Your task to perform on an android device: Open wifi settings Image 0: 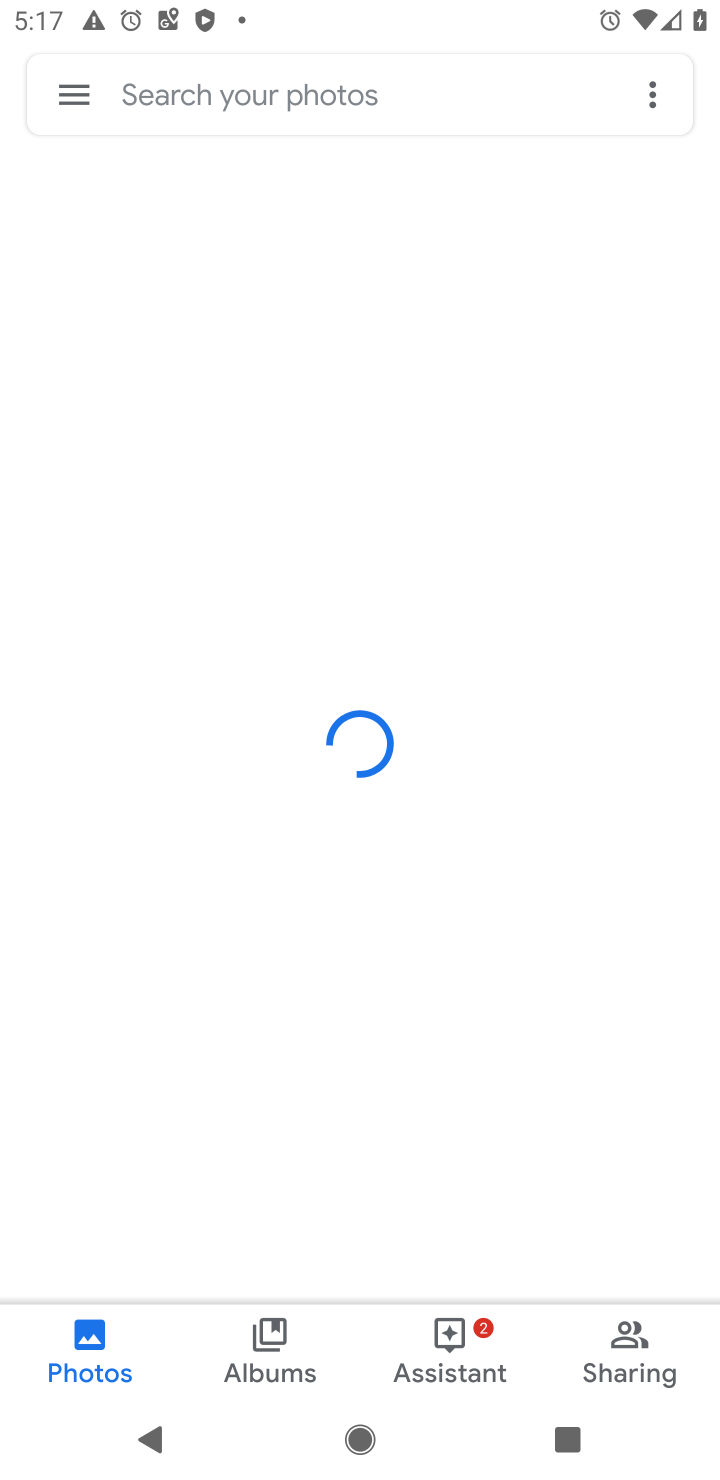
Step 0: drag from (484, 10) to (440, 1077)
Your task to perform on an android device: Open wifi settings Image 1: 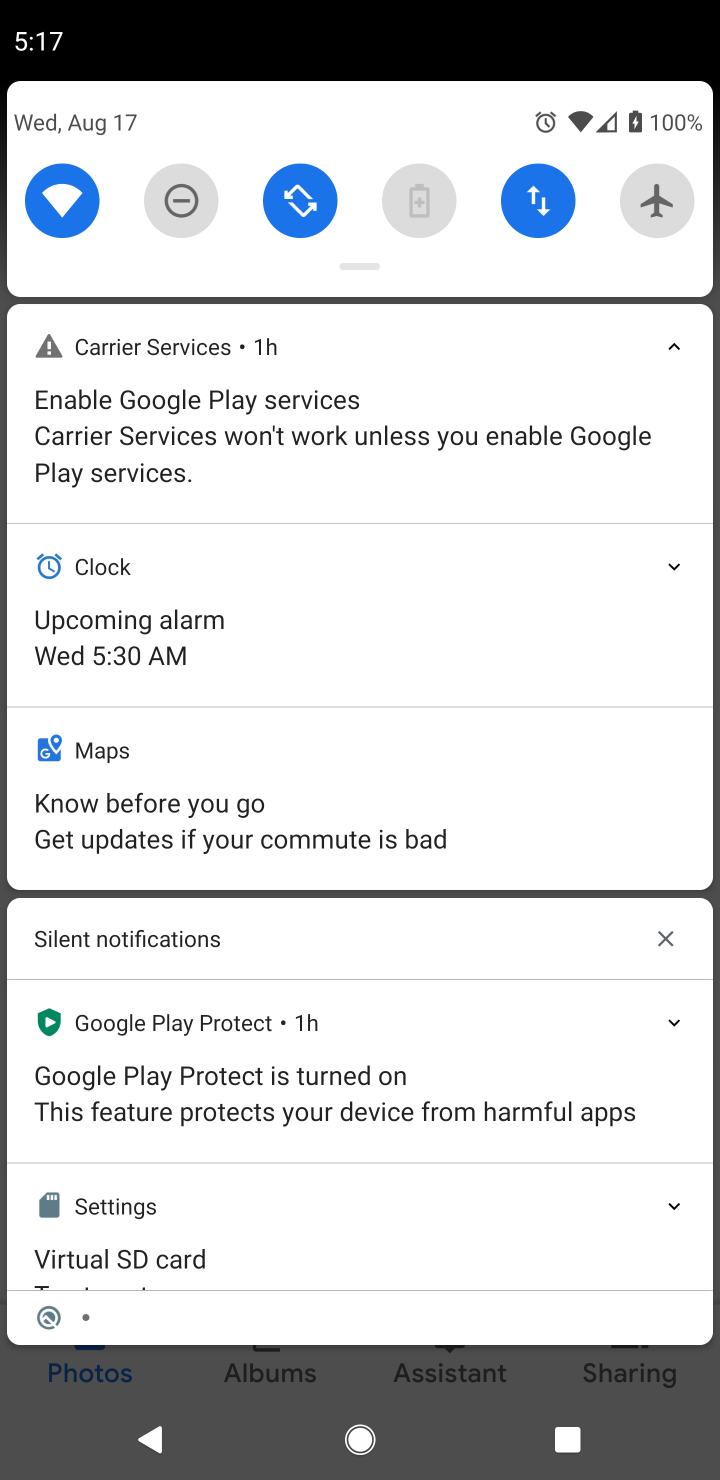
Step 1: click (49, 194)
Your task to perform on an android device: Open wifi settings Image 2: 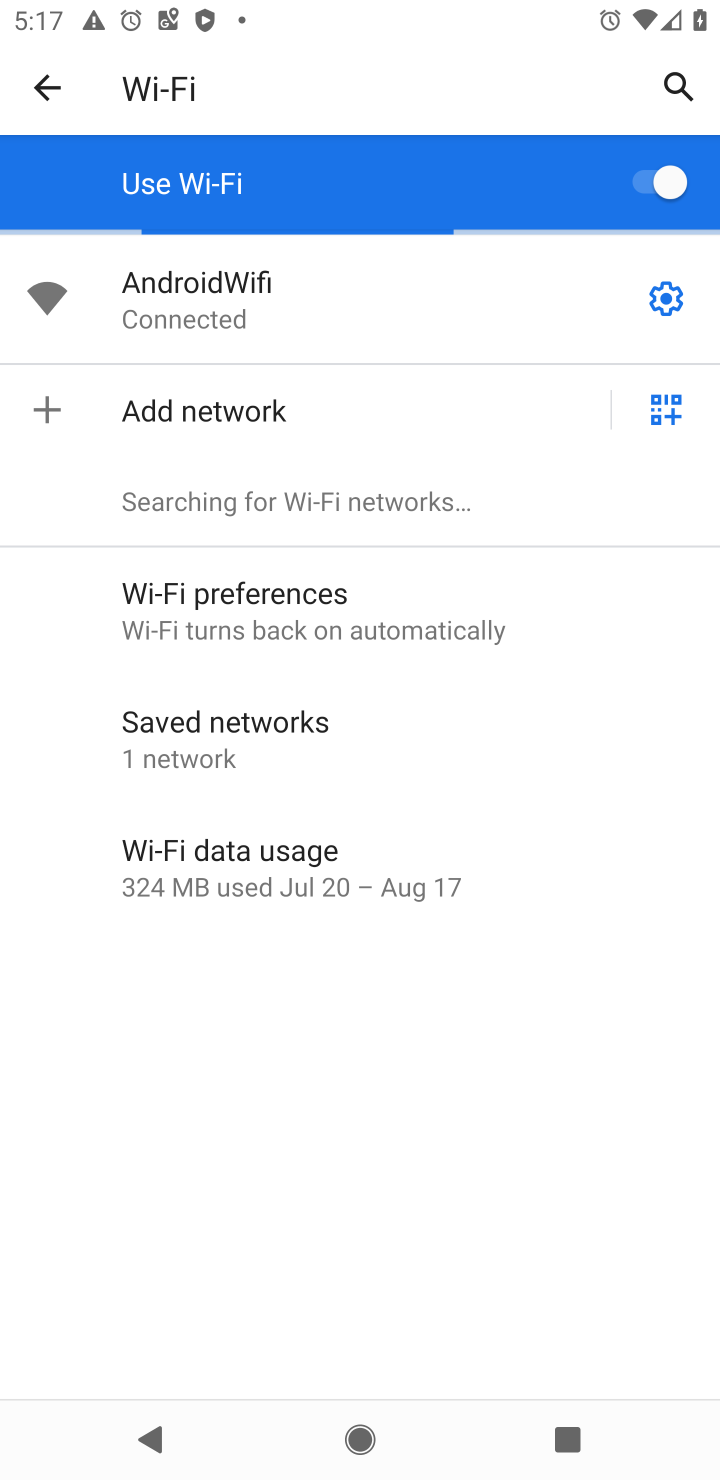
Step 2: task complete